Your task to perform on an android device: Open the Play Movies app and select the watchlist tab. Image 0: 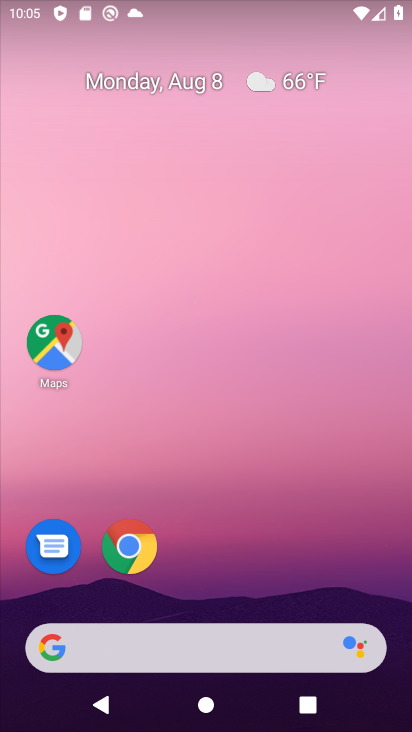
Step 0: drag from (234, 457) to (266, 200)
Your task to perform on an android device: Open the Play Movies app and select the watchlist tab. Image 1: 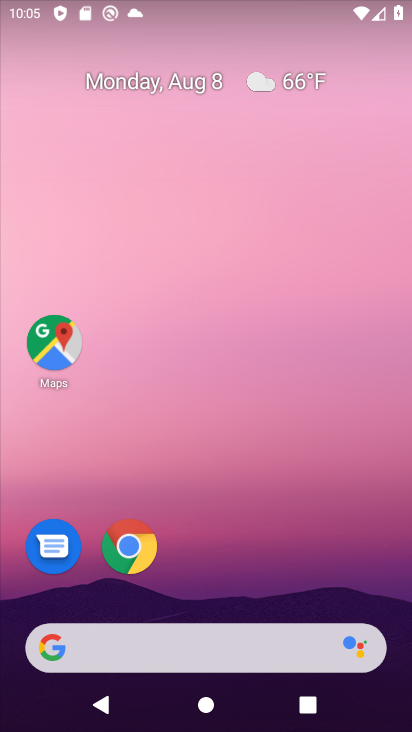
Step 1: drag from (262, 506) to (256, 180)
Your task to perform on an android device: Open the Play Movies app and select the watchlist tab. Image 2: 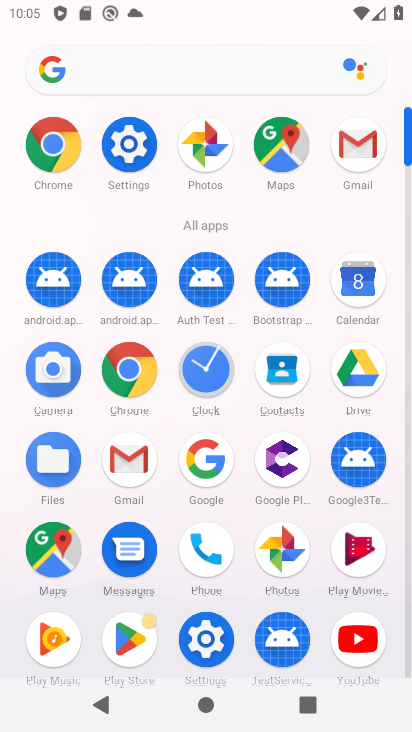
Step 2: click (362, 565)
Your task to perform on an android device: Open the Play Movies app and select the watchlist tab. Image 3: 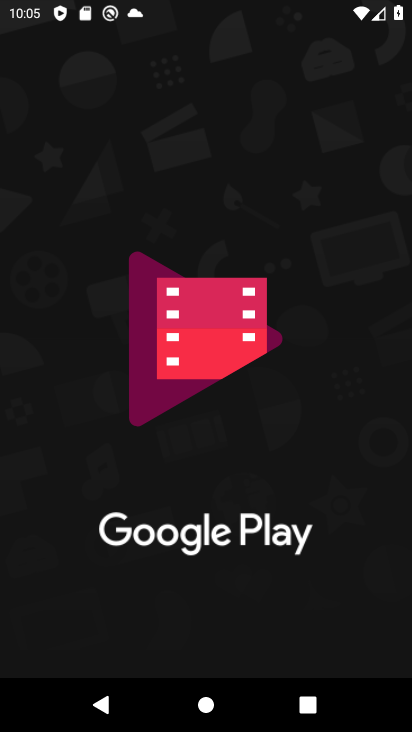
Step 3: task complete